Your task to perform on an android device: turn on notifications settings in the gmail app Image 0: 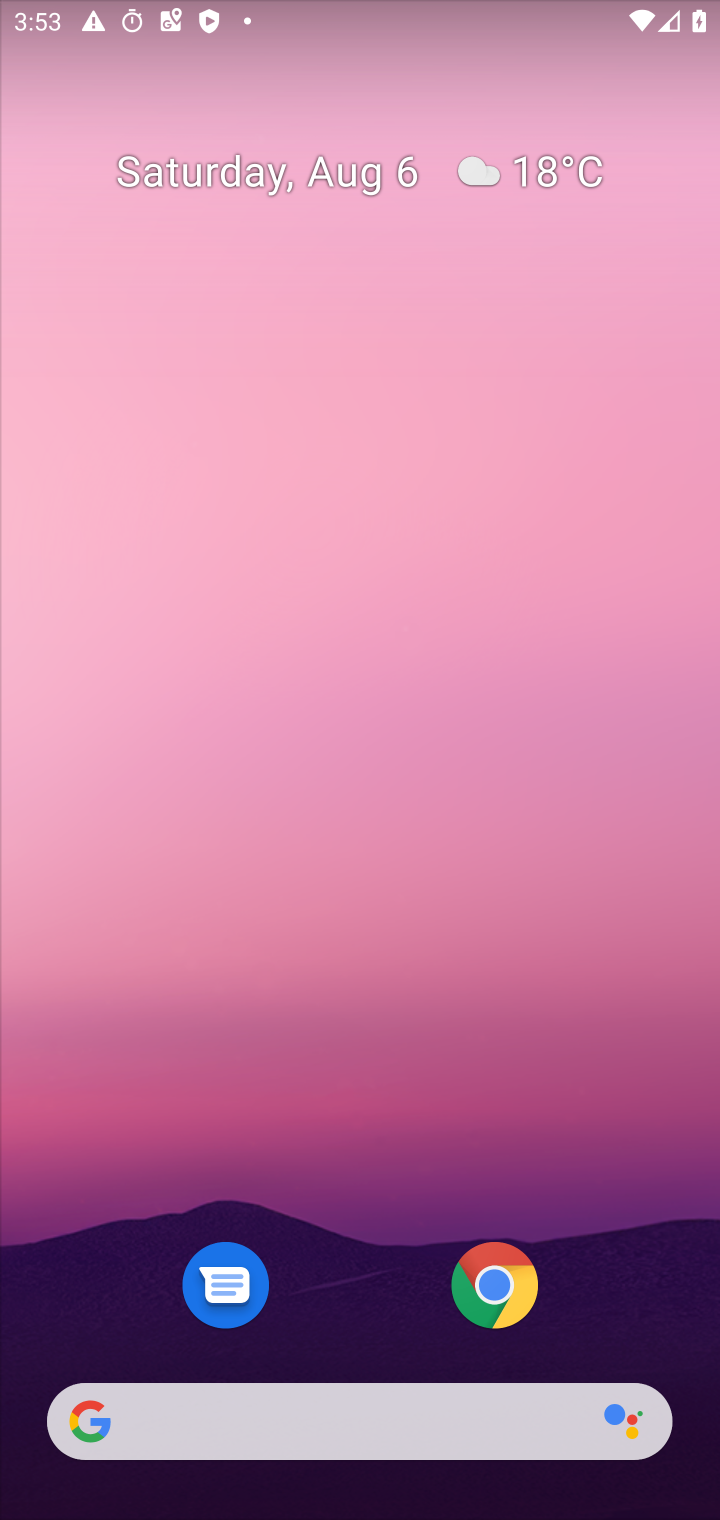
Step 0: press home button
Your task to perform on an android device: turn on notifications settings in the gmail app Image 1: 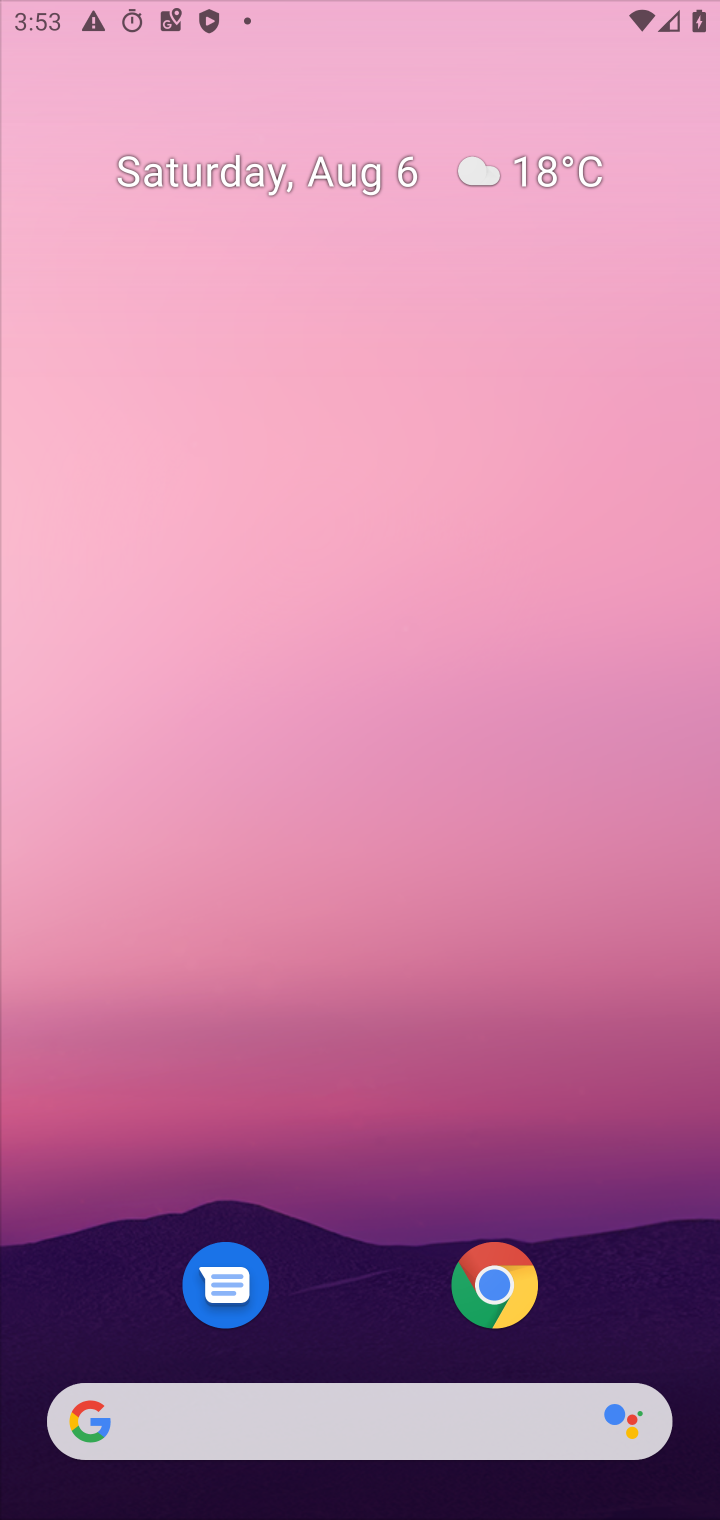
Step 1: press home button
Your task to perform on an android device: turn on notifications settings in the gmail app Image 2: 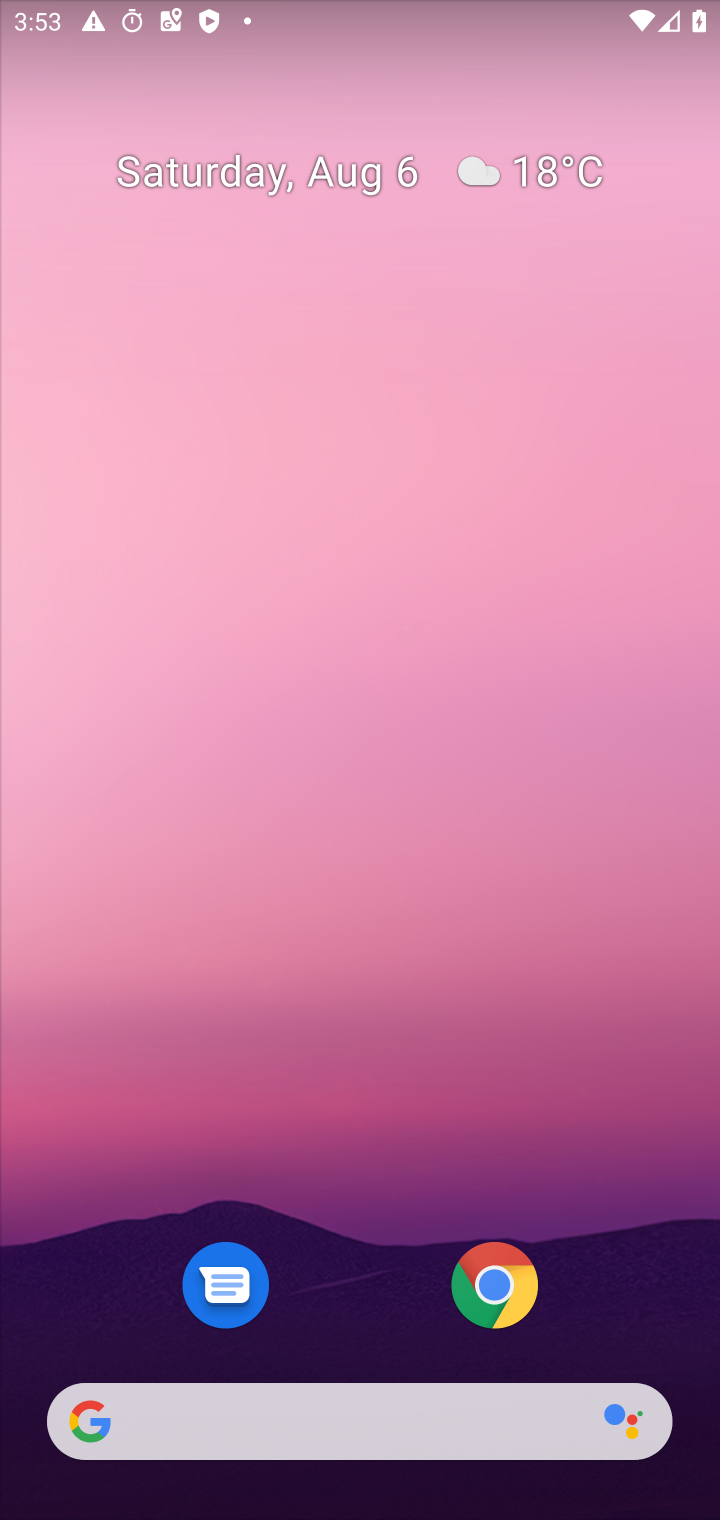
Step 2: drag from (364, 1271) to (400, 220)
Your task to perform on an android device: turn on notifications settings in the gmail app Image 3: 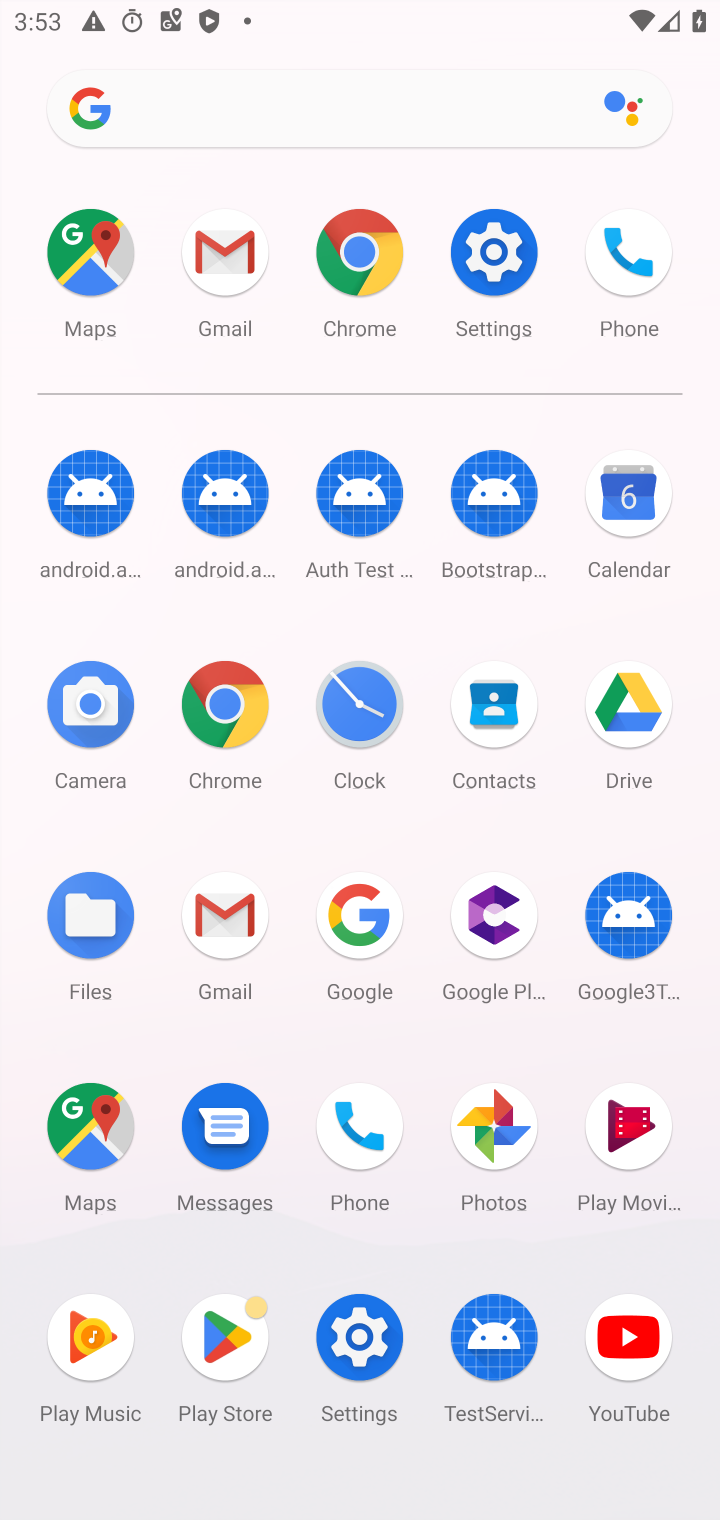
Step 3: click (217, 894)
Your task to perform on an android device: turn on notifications settings in the gmail app Image 4: 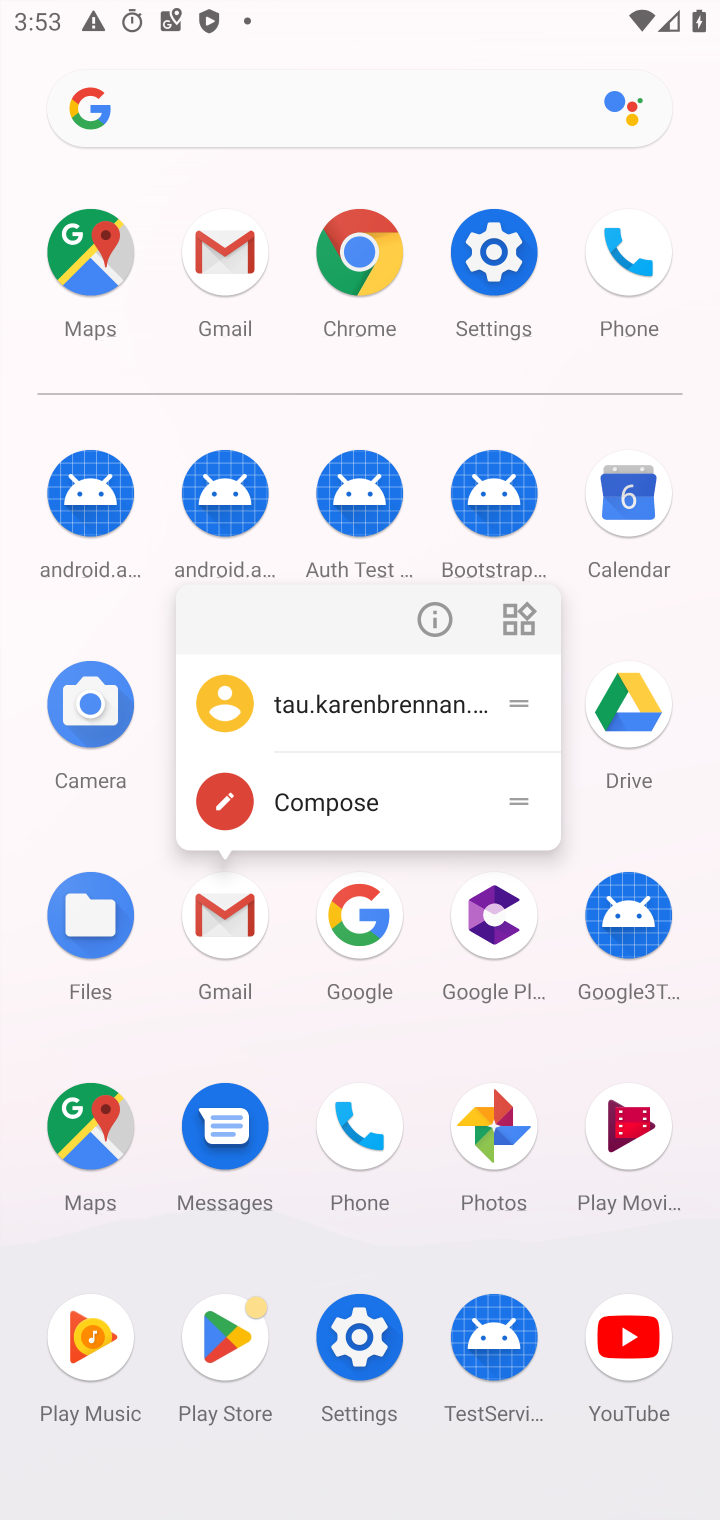
Step 4: click (217, 894)
Your task to perform on an android device: turn on notifications settings in the gmail app Image 5: 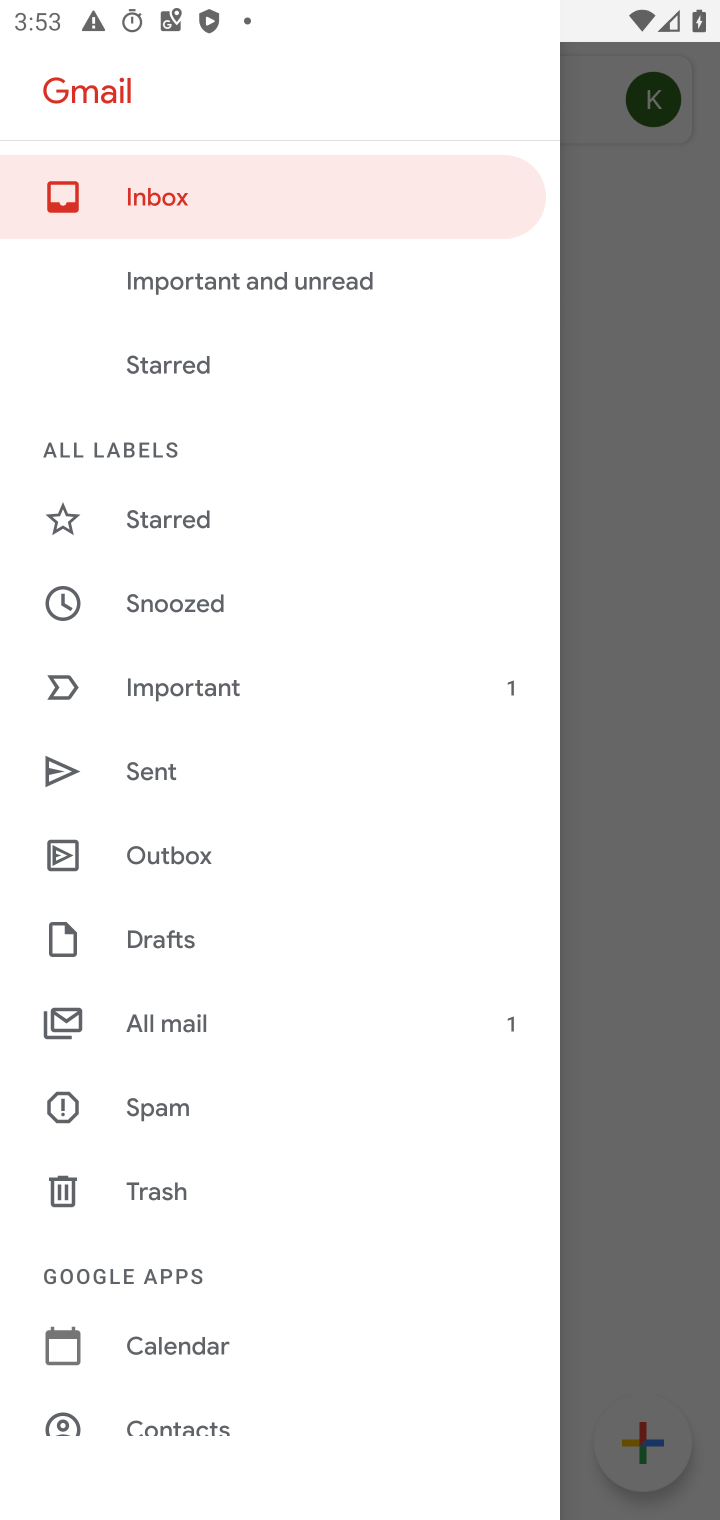
Step 5: drag from (281, 1353) to (338, 300)
Your task to perform on an android device: turn on notifications settings in the gmail app Image 6: 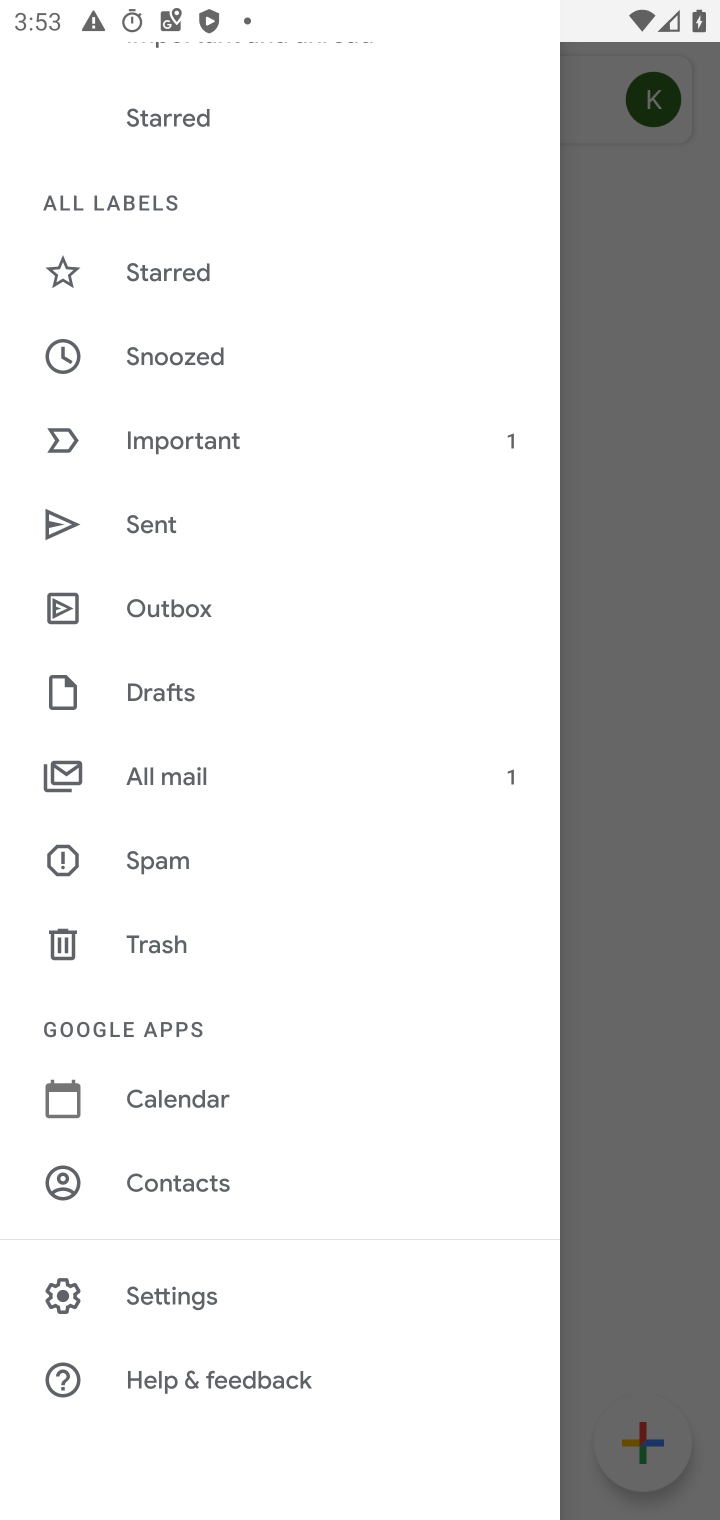
Step 6: click (245, 1278)
Your task to perform on an android device: turn on notifications settings in the gmail app Image 7: 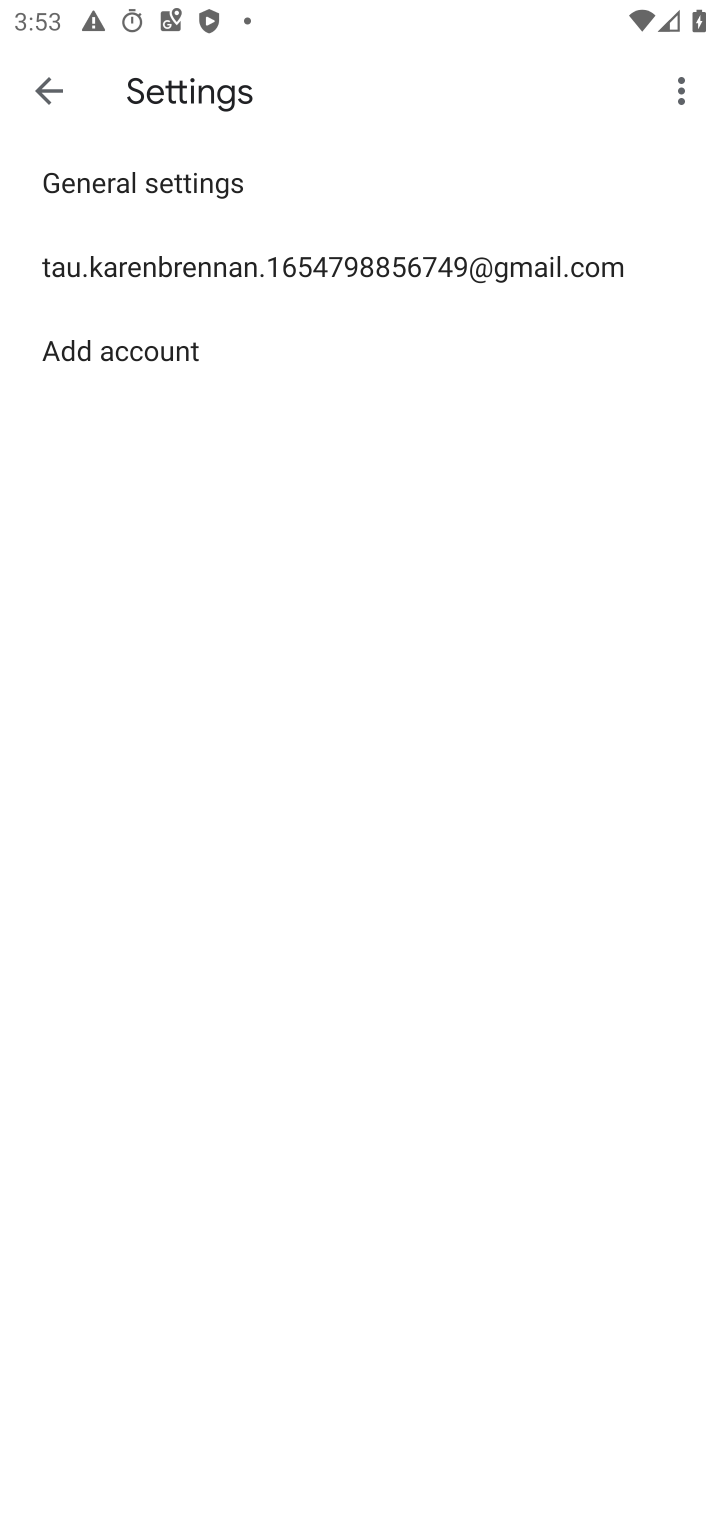
Step 7: click (282, 177)
Your task to perform on an android device: turn on notifications settings in the gmail app Image 8: 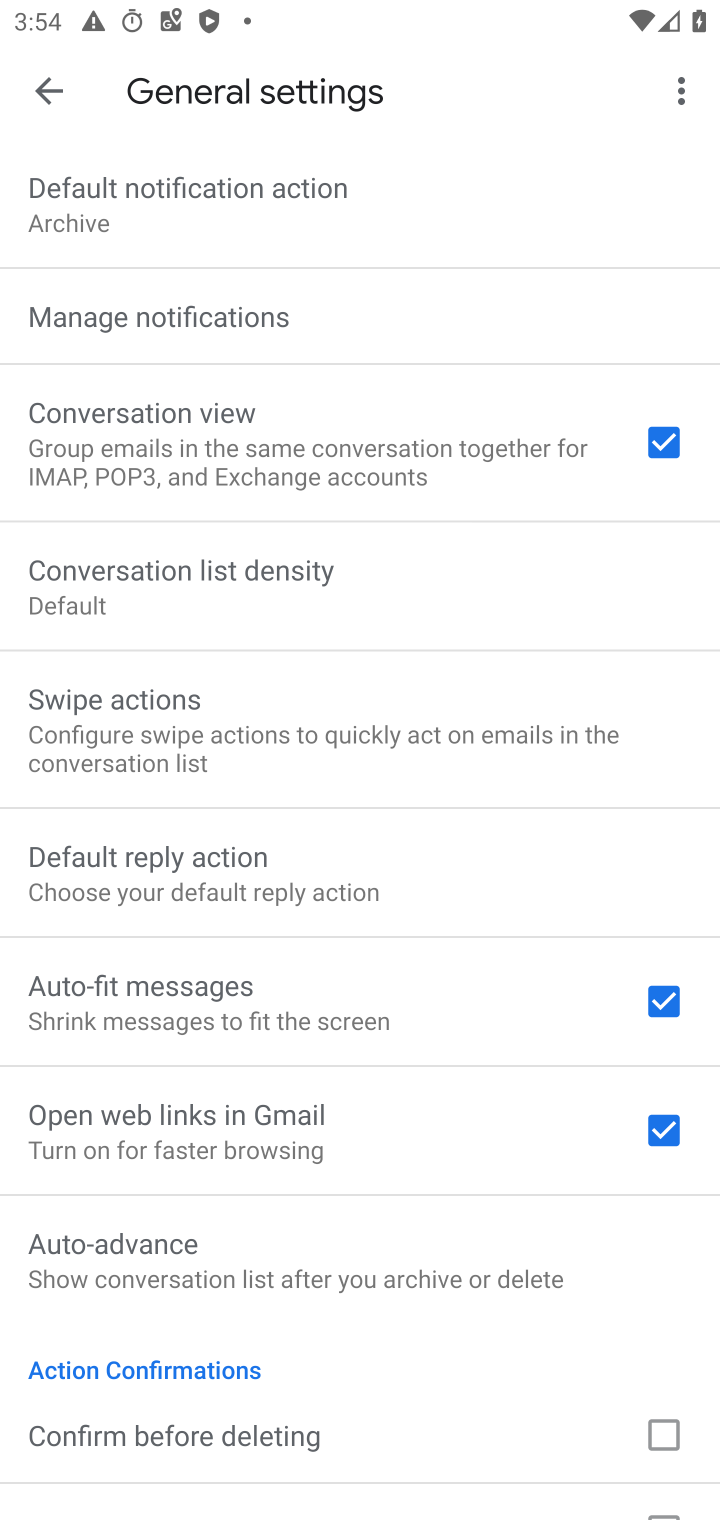
Step 8: click (233, 292)
Your task to perform on an android device: turn on notifications settings in the gmail app Image 9: 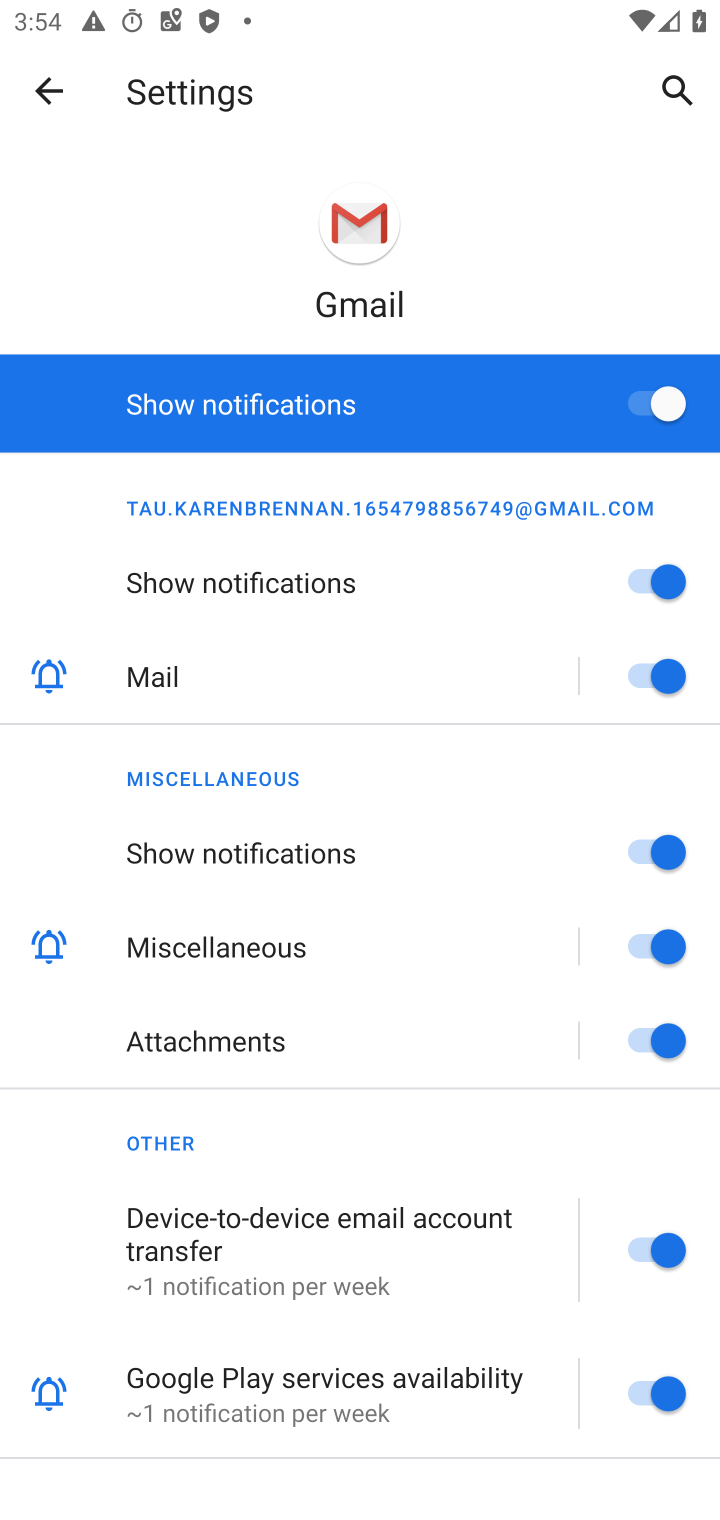
Step 9: task complete